Your task to perform on an android device: turn off translation in the chrome app Image 0: 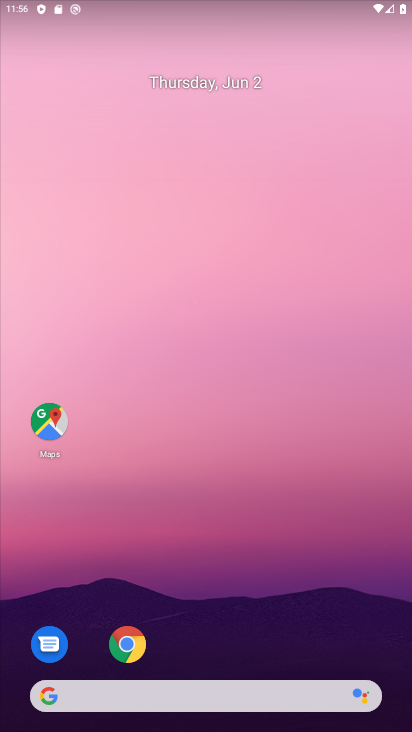
Step 0: click (128, 645)
Your task to perform on an android device: turn off translation in the chrome app Image 1: 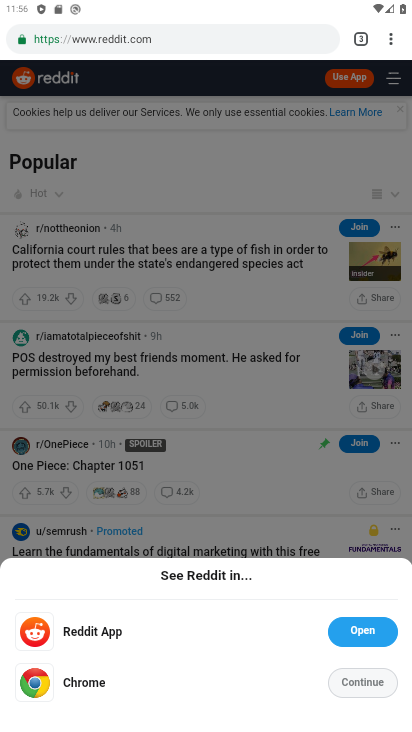
Step 1: click (391, 45)
Your task to perform on an android device: turn off translation in the chrome app Image 2: 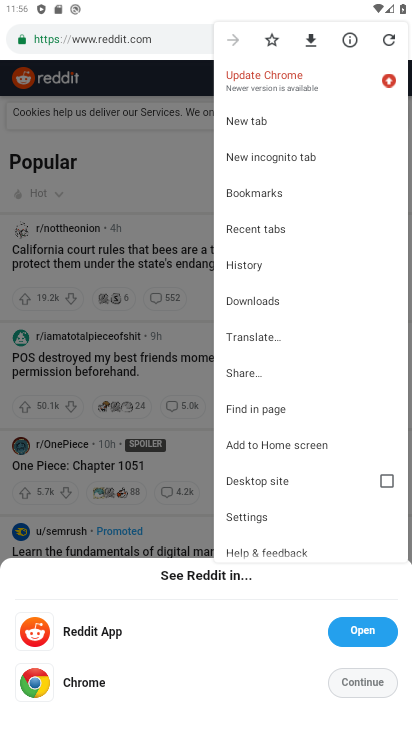
Step 2: click (255, 519)
Your task to perform on an android device: turn off translation in the chrome app Image 3: 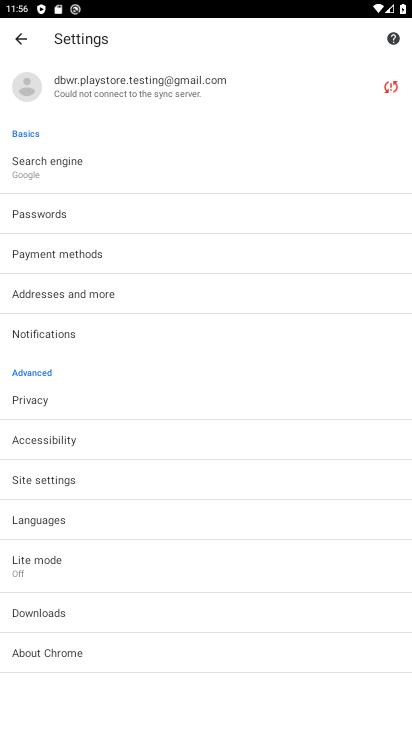
Step 3: click (50, 520)
Your task to perform on an android device: turn off translation in the chrome app Image 4: 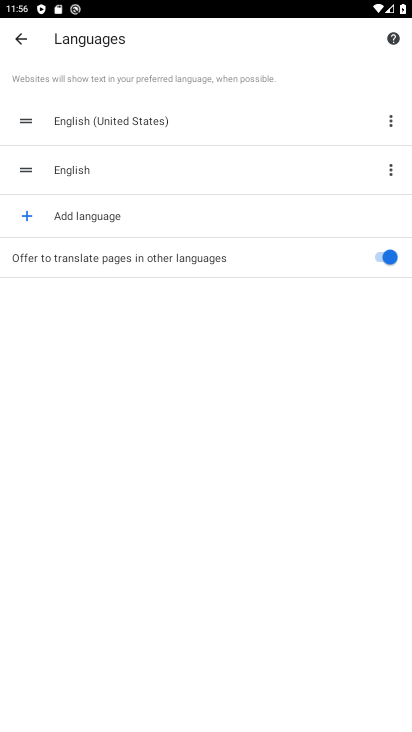
Step 4: click (379, 258)
Your task to perform on an android device: turn off translation in the chrome app Image 5: 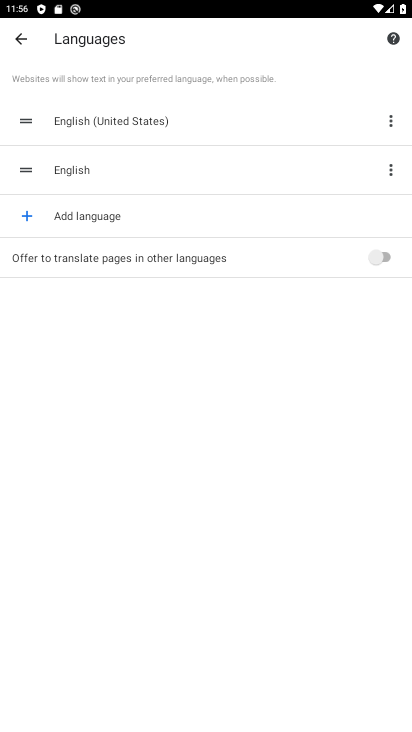
Step 5: task complete